Your task to perform on an android device: Open Wikipedia Image 0: 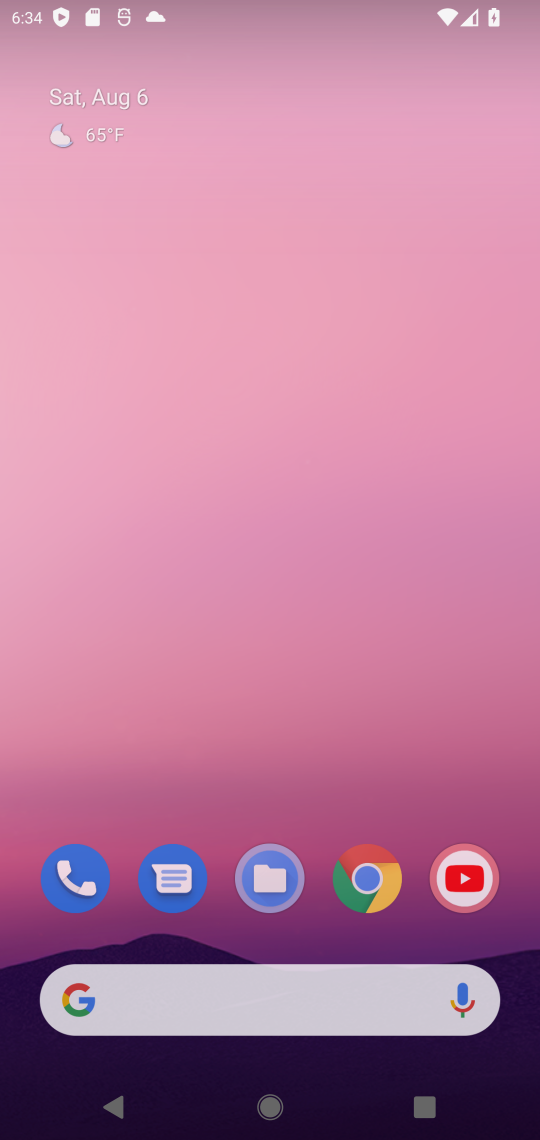
Step 0: press back button
Your task to perform on an android device: Open Wikipedia Image 1: 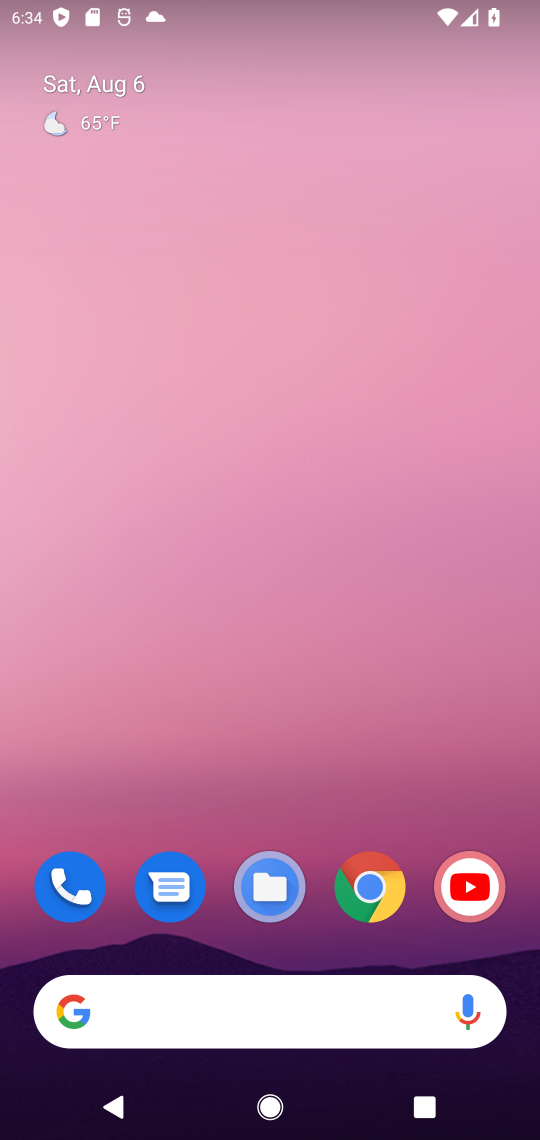
Step 1: drag from (344, 823) to (90, 162)
Your task to perform on an android device: Open Wikipedia Image 2: 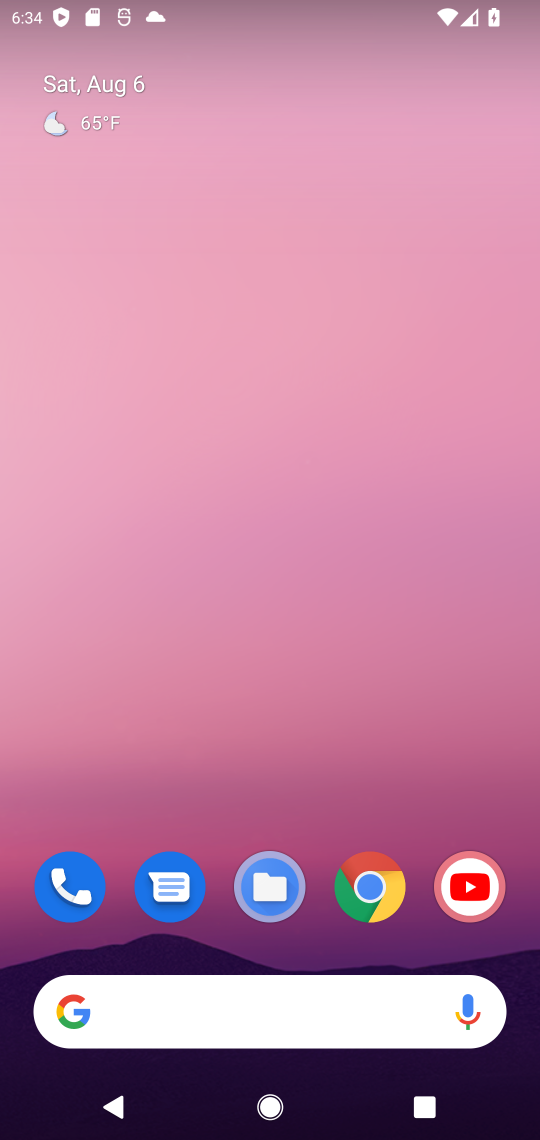
Step 2: click (150, 197)
Your task to perform on an android device: Open Wikipedia Image 3: 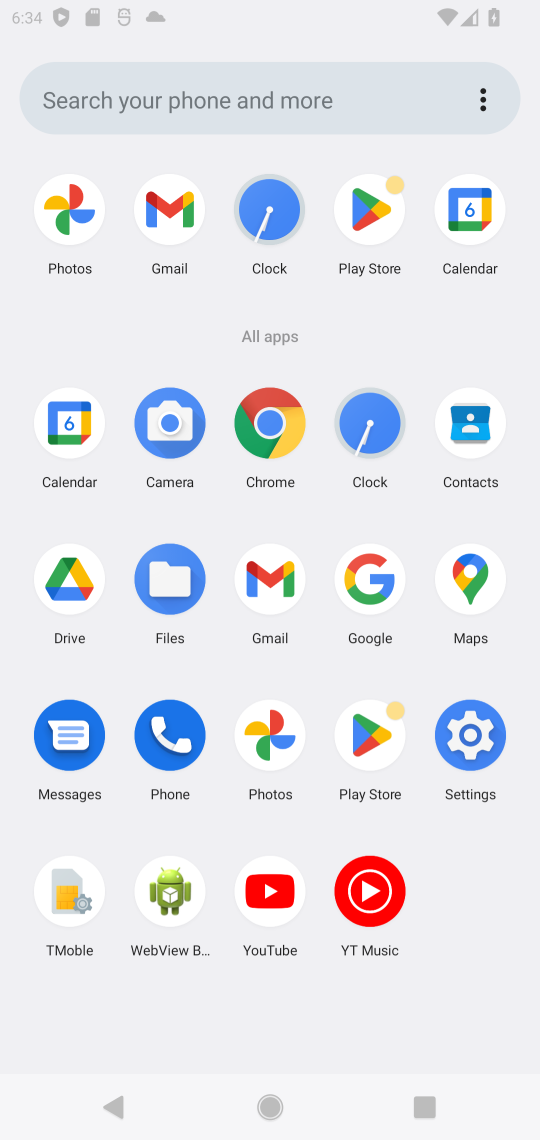
Step 3: drag from (293, 901) to (231, 266)
Your task to perform on an android device: Open Wikipedia Image 4: 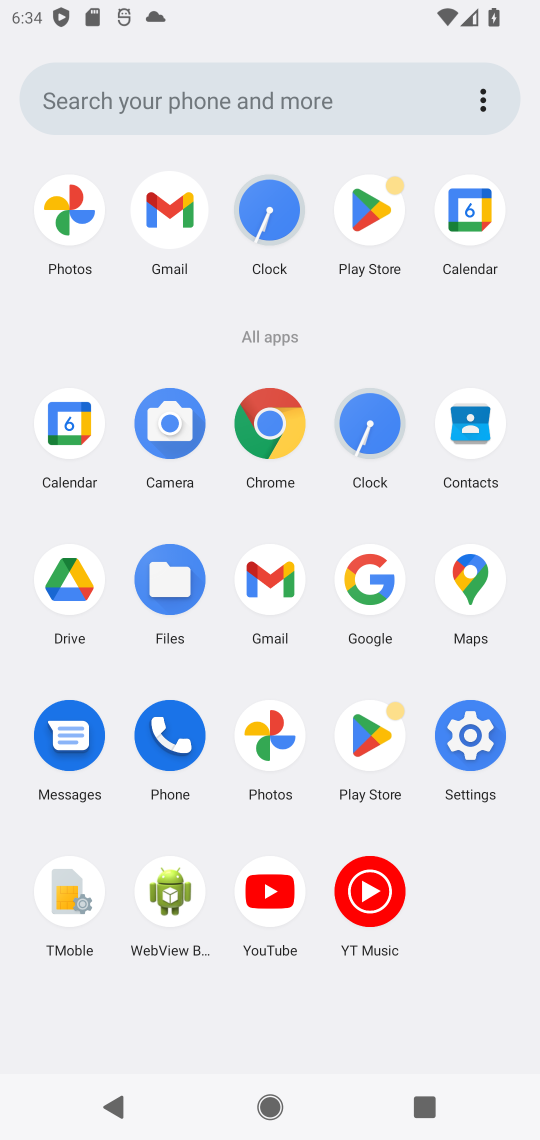
Step 4: drag from (399, 874) to (311, 281)
Your task to perform on an android device: Open Wikipedia Image 5: 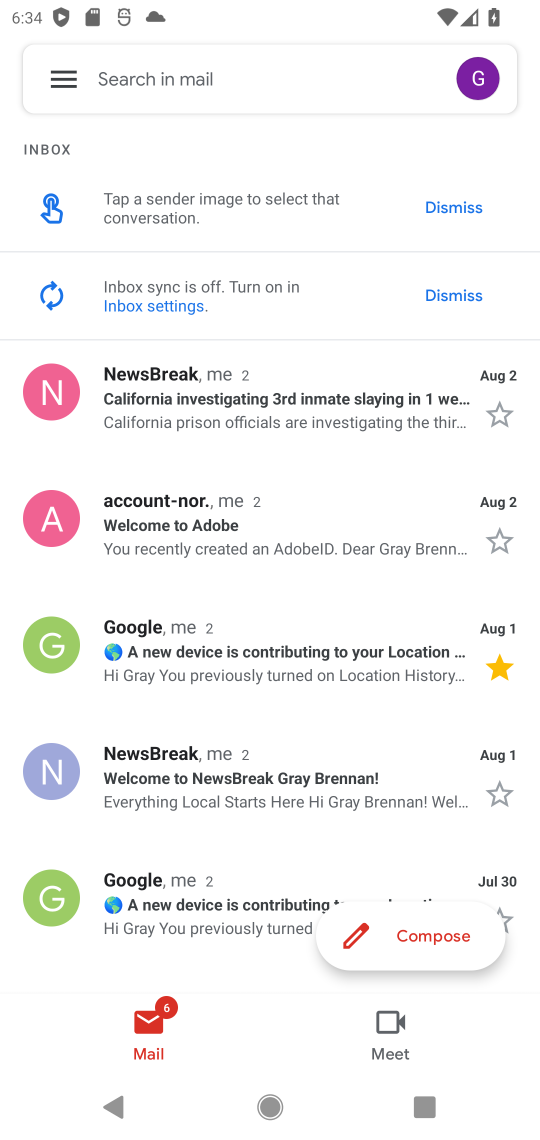
Step 5: press back button
Your task to perform on an android device: Open Wikipedia Image 6: 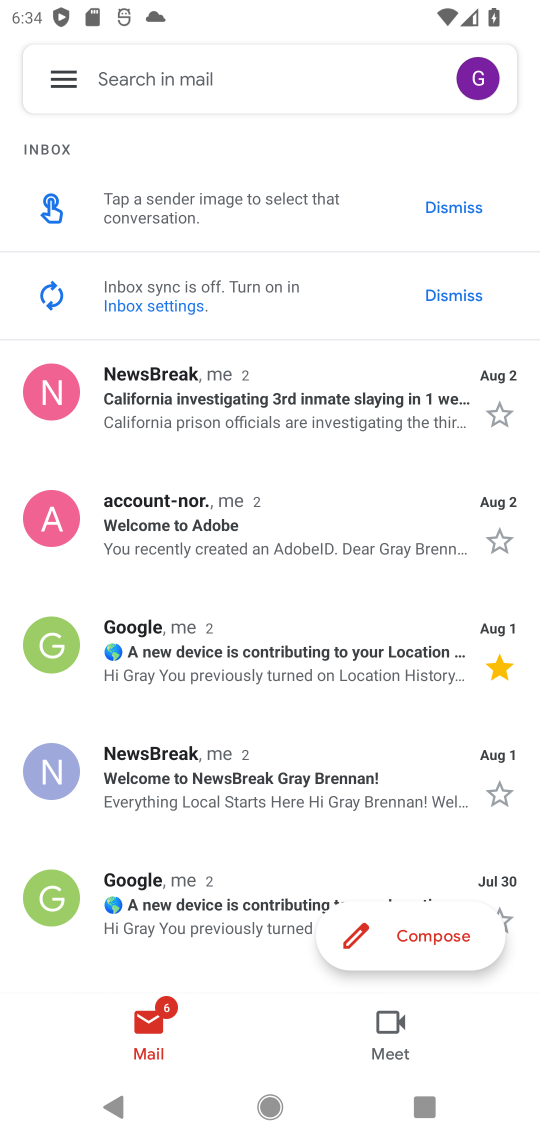
Step 6: press back button
Your task to perform on an android device: Open Wikipedia Image 7: 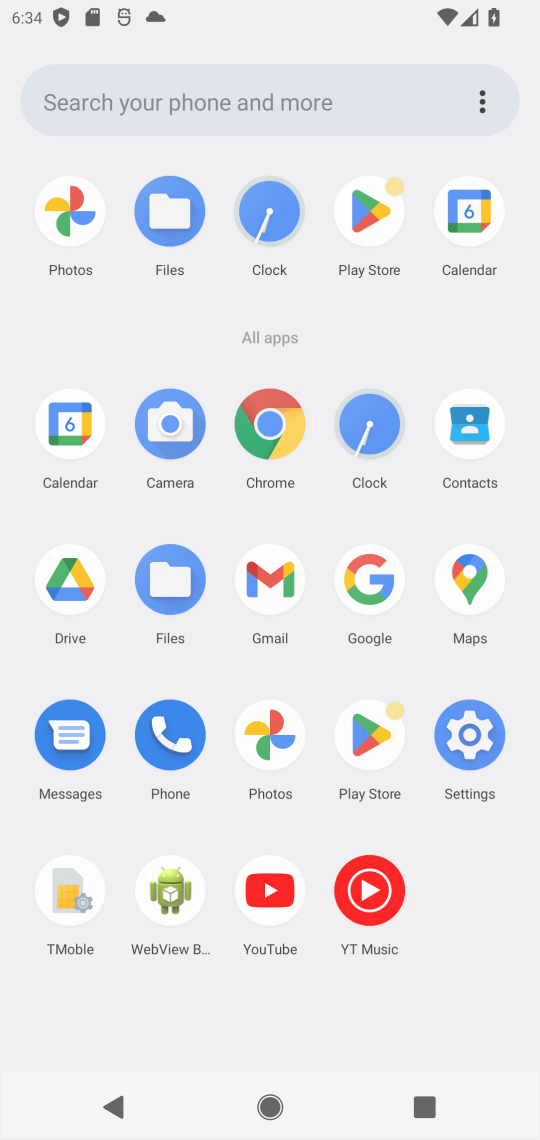
Step 7: press back button
Your task to perform on an android device: Open Wikipedia Image 8: 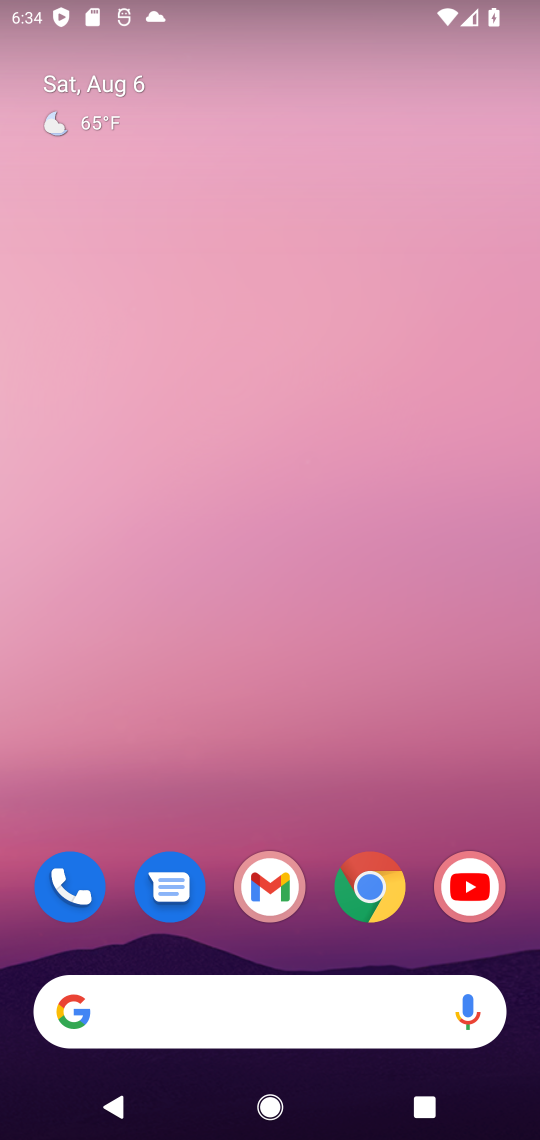
Step 8: drag from (301, 924) to (163, 167)
Your task to perform on an android device: Open Wikipedia Image 9: 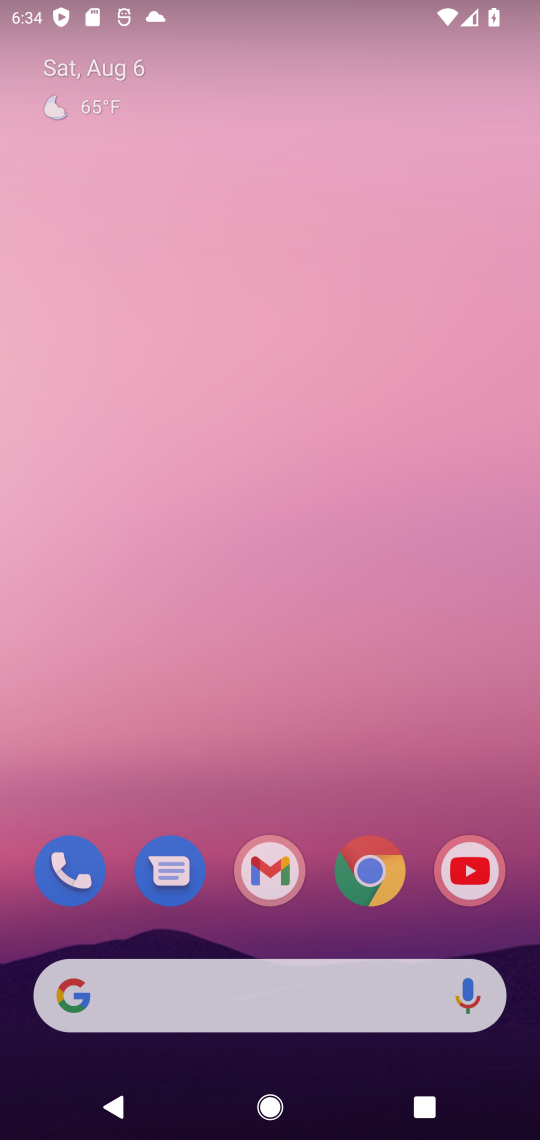
Step 9: drag from (156, 306) to (141, 224)
Your task to perform on an android device: Open Wikipedia Image 10: 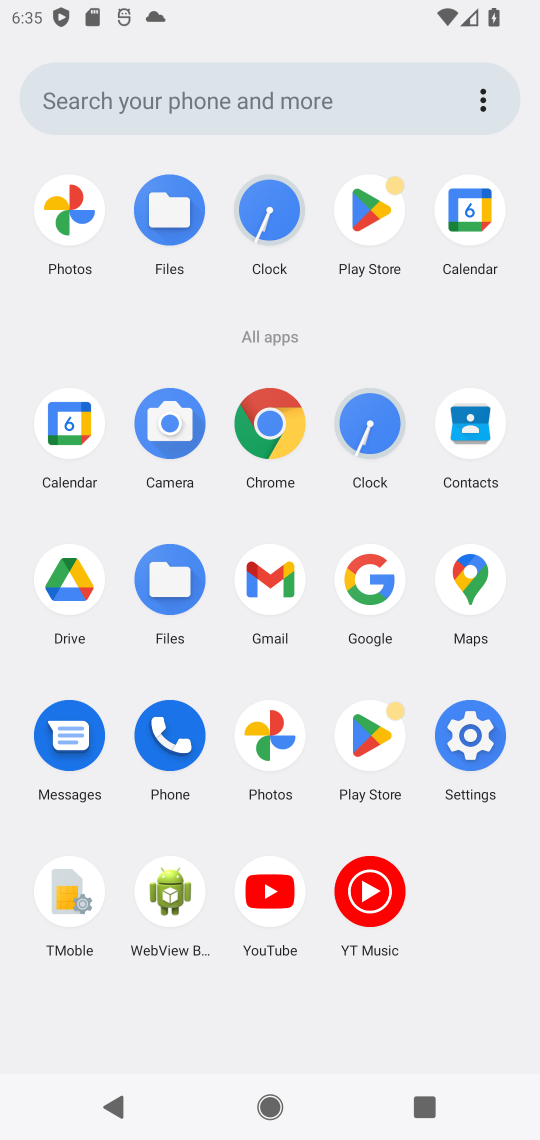
Step 10: click (254, 437)
Your task to perform on an android device: Open Wikipedia Image 11: 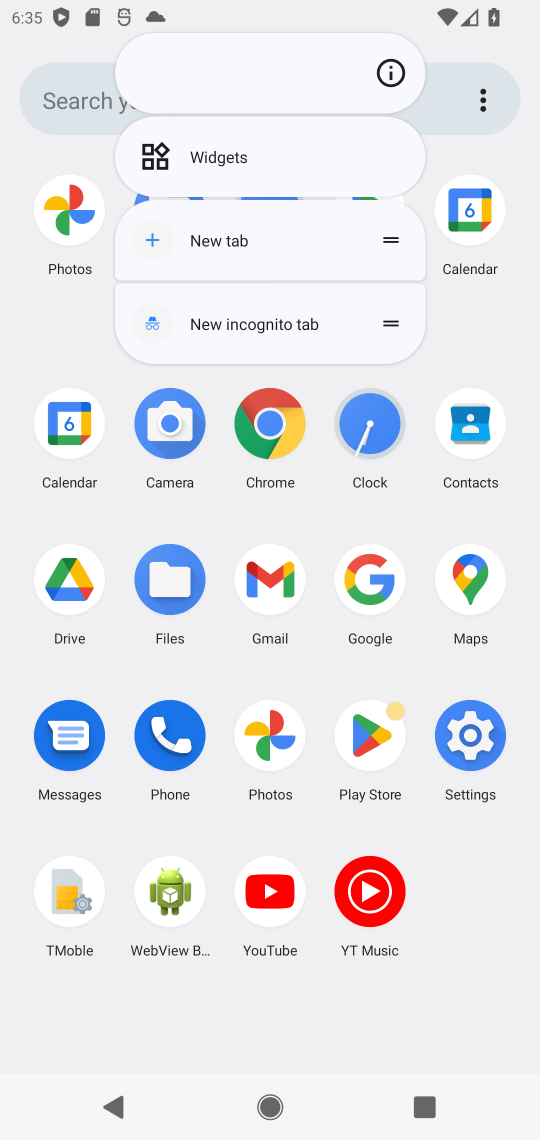
Step 11: click (271, 413)
Your task to perform on an android device: Open Wikipedia Image 12: 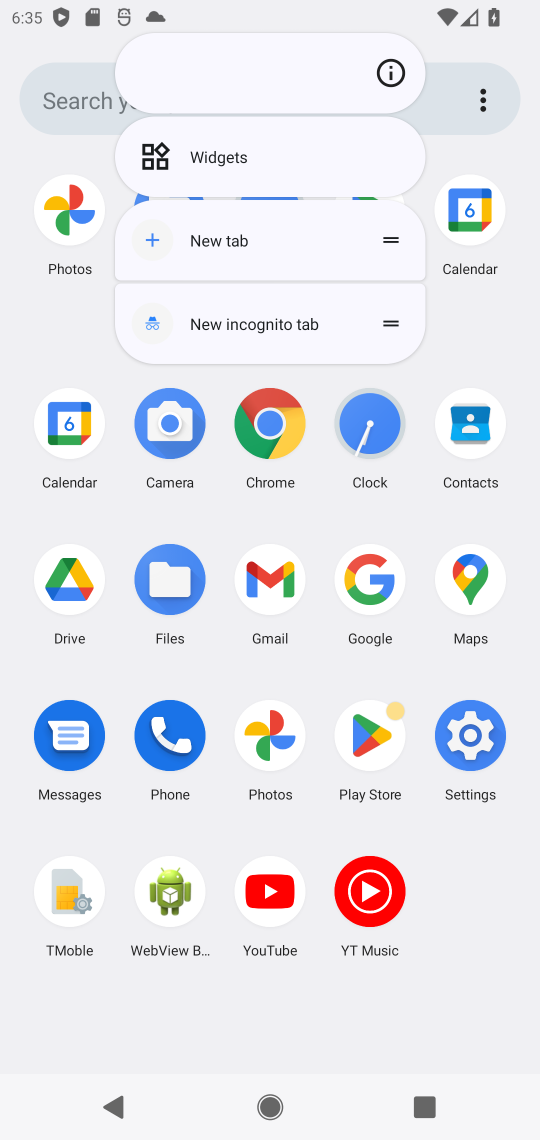
Step 12: click (265, 454)
Your task to perform on an android device: Open Wikipedia Image 13: 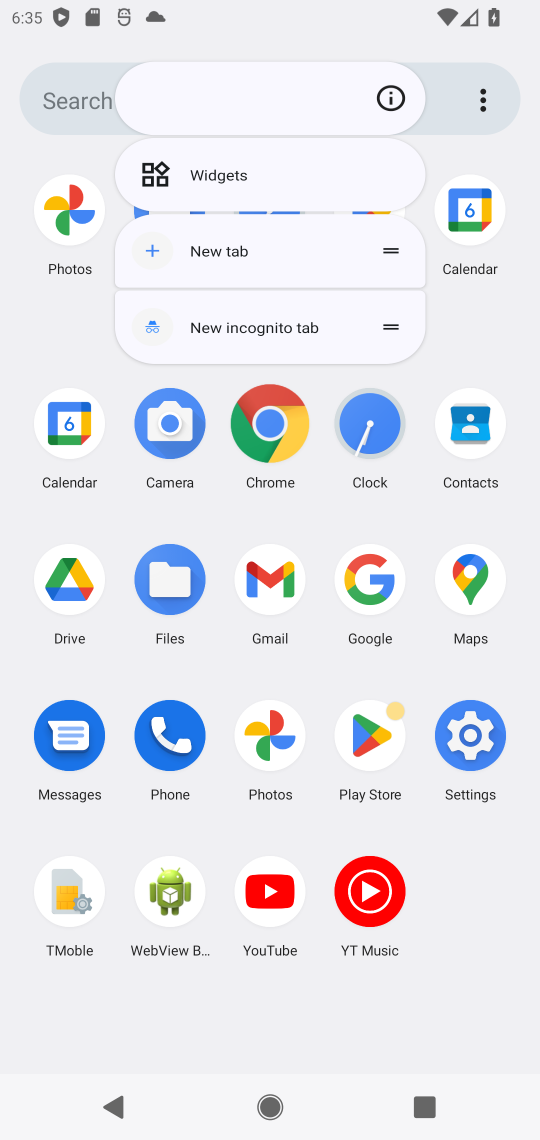
Step 13: click (265, 433)
Your task to perform on an android device: Open Wikipedia Image 14: 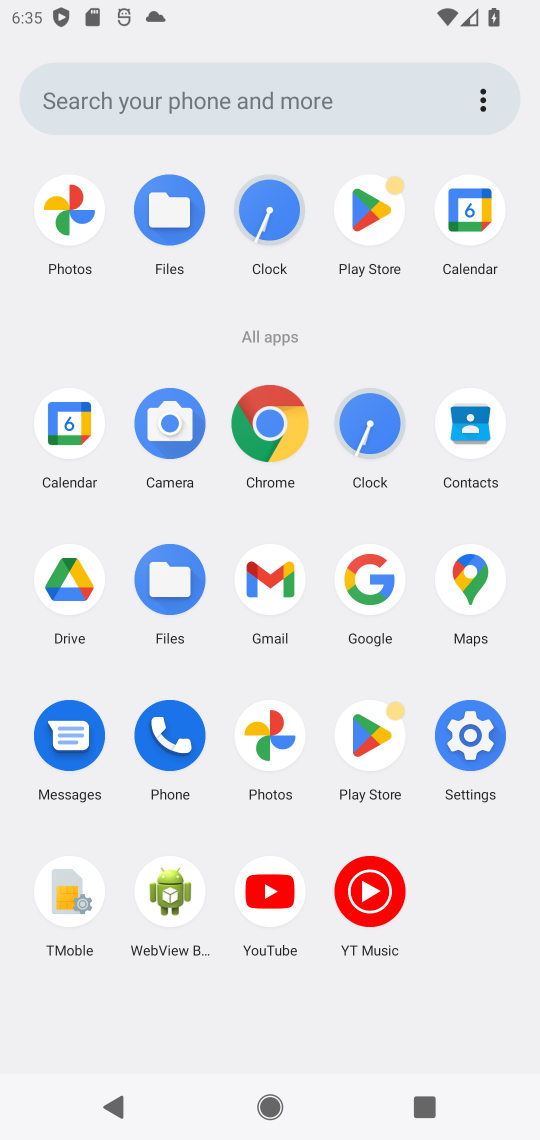
Step 14: click (265, 430)
Your task to perform on an android device: Open Wikipedia Image 15: 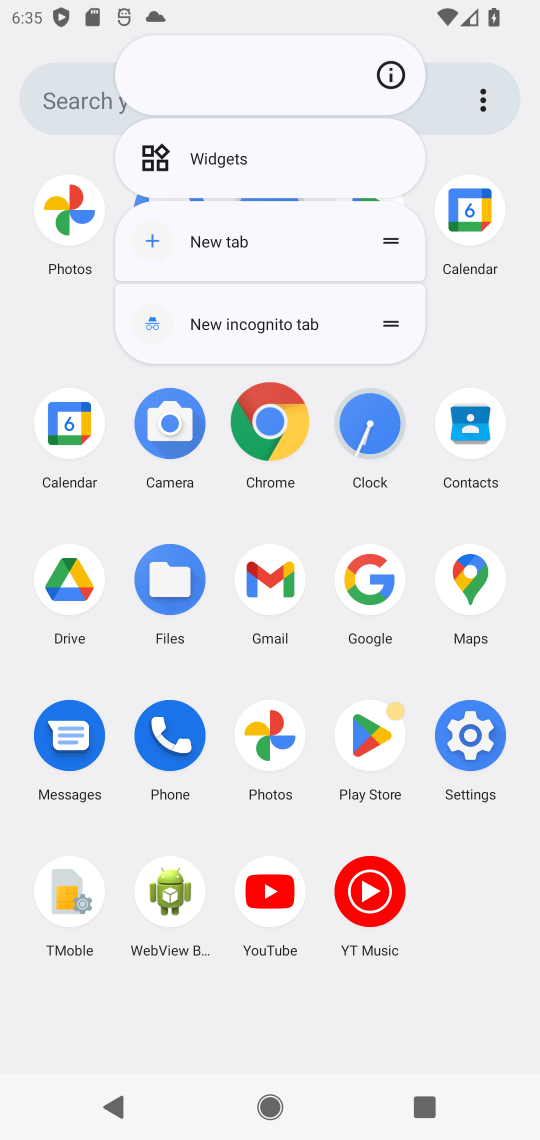
Step 15: click (265, 428)
Your task to perform on an android device: Open Wikipedia Image 16: 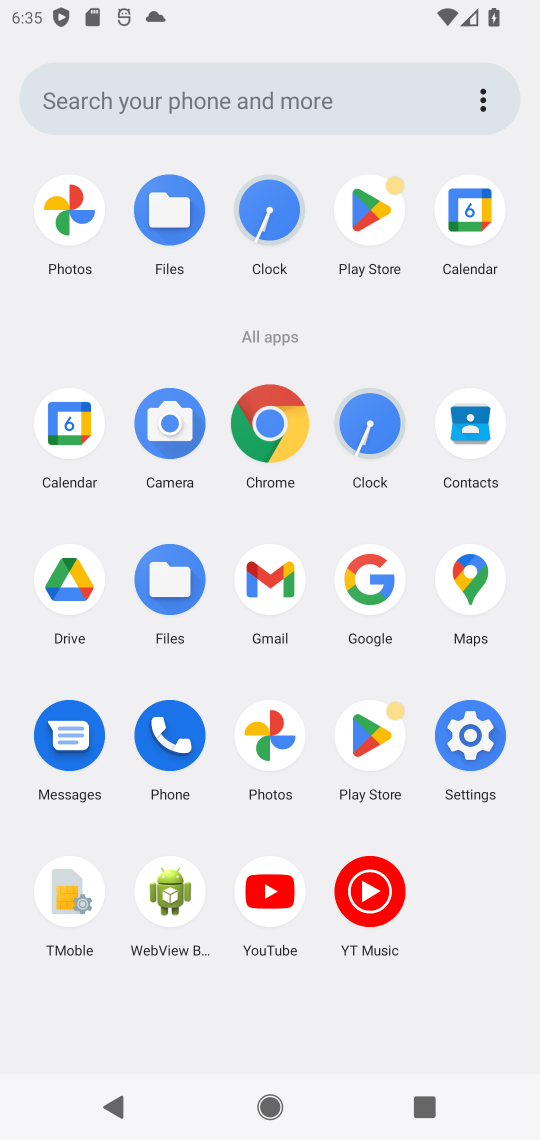
Step 16: click (265, 433)
Your task to perform on an android device: Open Wikipedia Image 17: 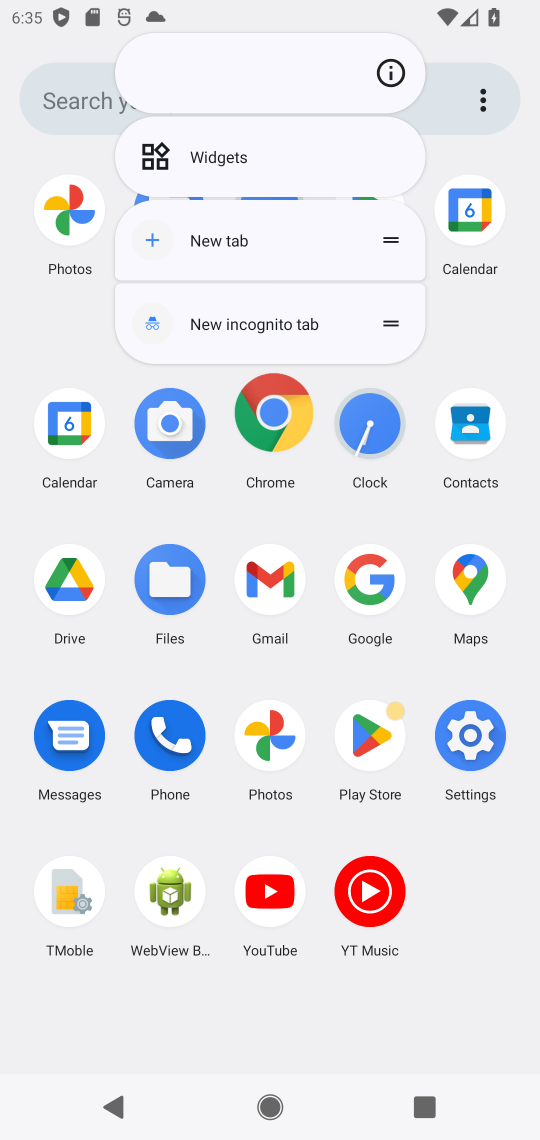
Step 17: click (275, 421)
Your task to perform on an android device: Open Wikipedia Image 18: 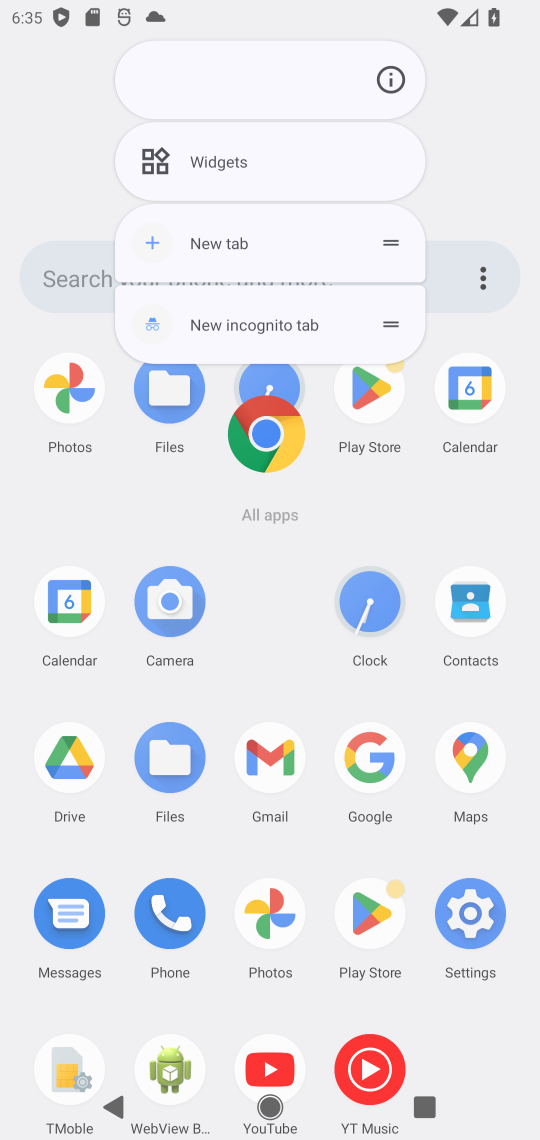
Step 18: click (264, 442)
Your task to perform on an android device: Open Wikipedia Image 19: 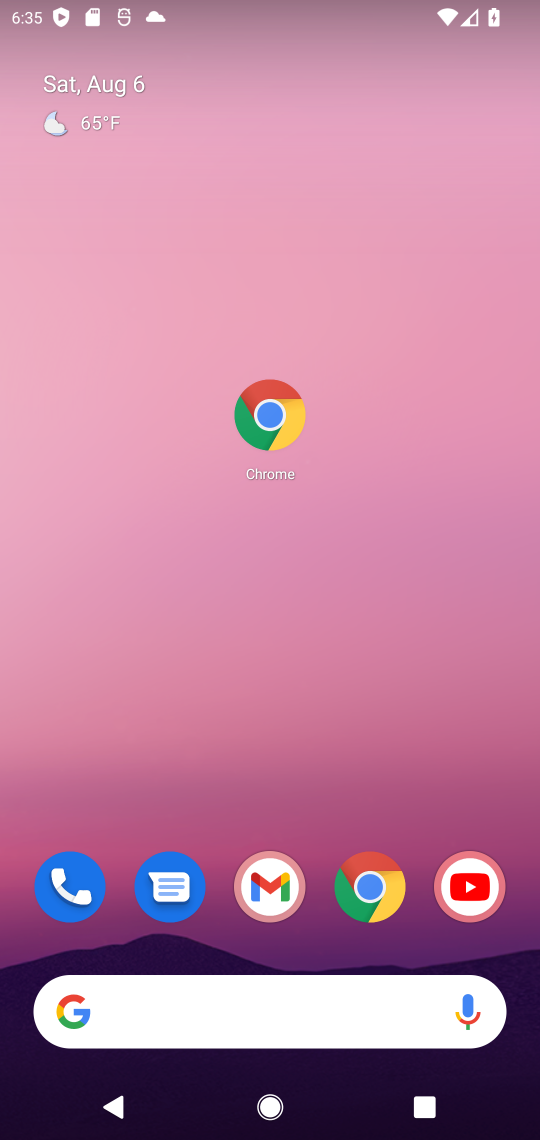
Step 19: drag from (330, 642) to (262, 120)
Your task to perform on an android device: Open Wikipedia Image 20: 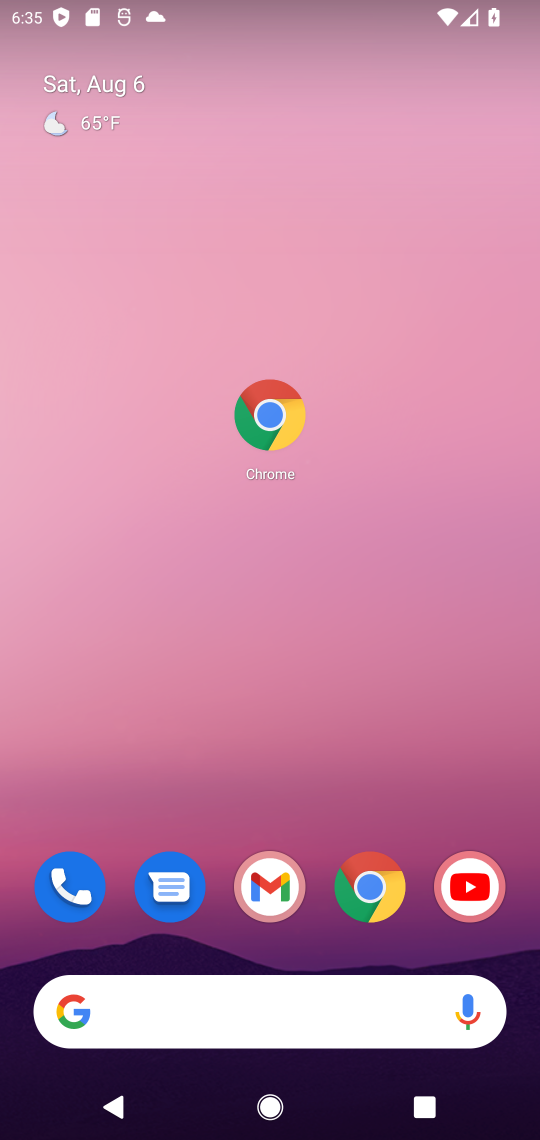
Step 20: click (211, 199)
Your task to perform on an android device: Open Wikipedia Image 21: 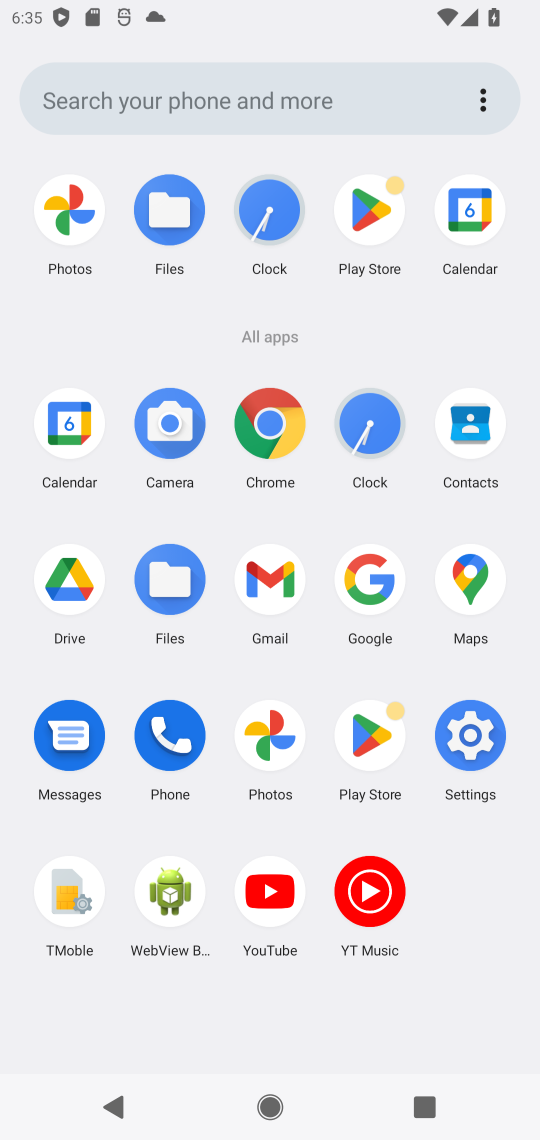
Step 21: click (230, 233)
Your task to perform on an android device: Open Wikipedia Image 22: 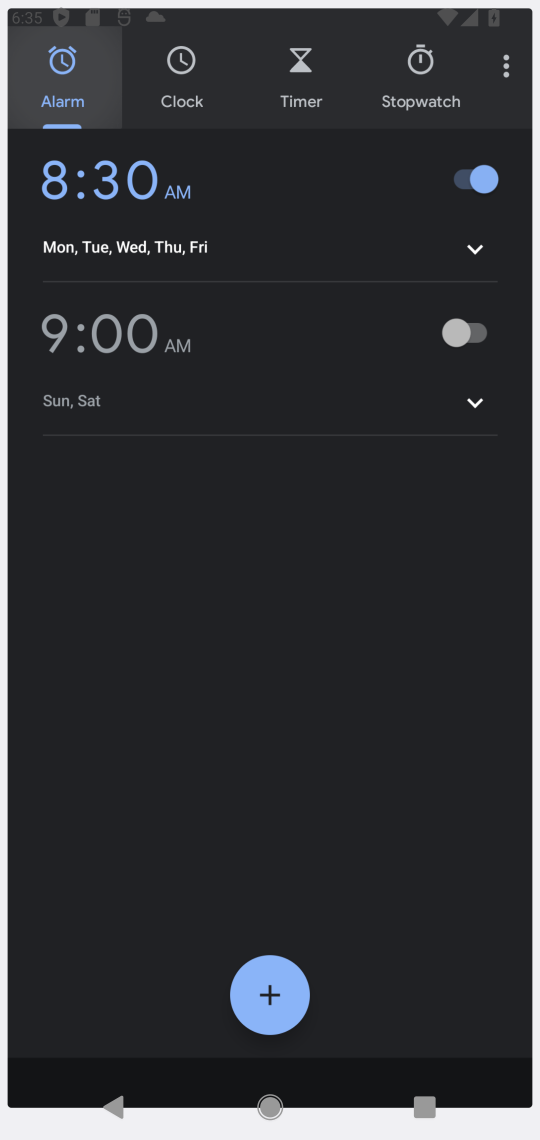
Step 22: click (276, 432)
Your task to perform on an android device: Open Wikipedia Image 23: 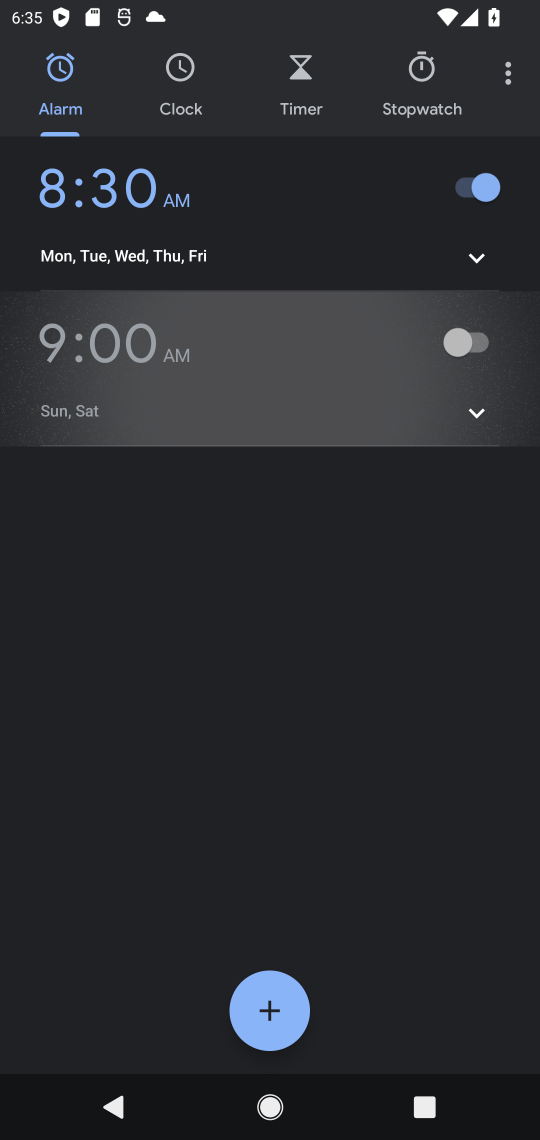
Step 23: click (276, 433)
Your task to perform on an android device: Open Wikipedia Image 24: 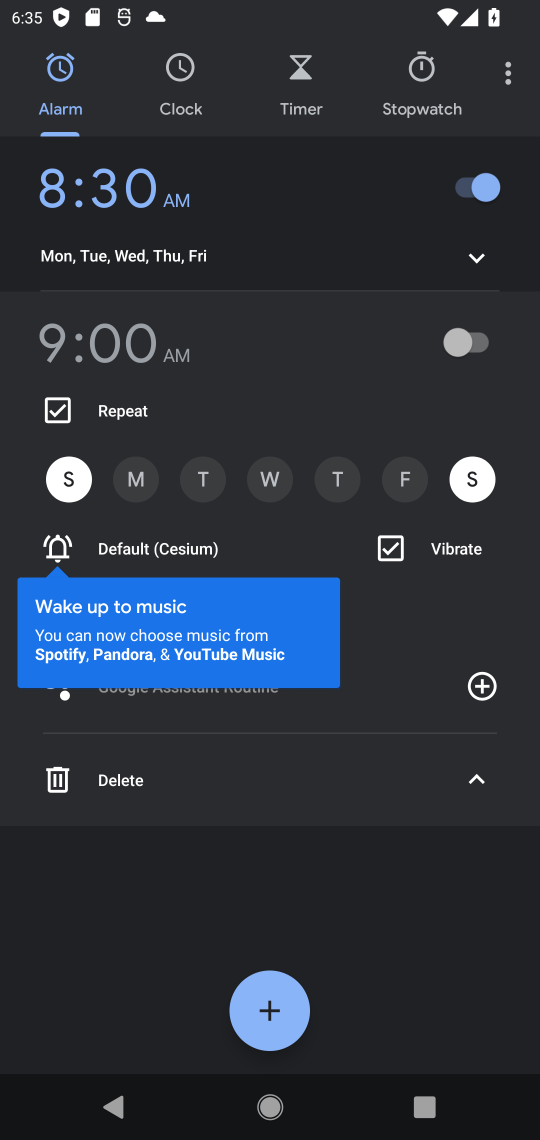
Step 24: press back button
Your task to perform on an android device: Open Wikipedia Image 25: 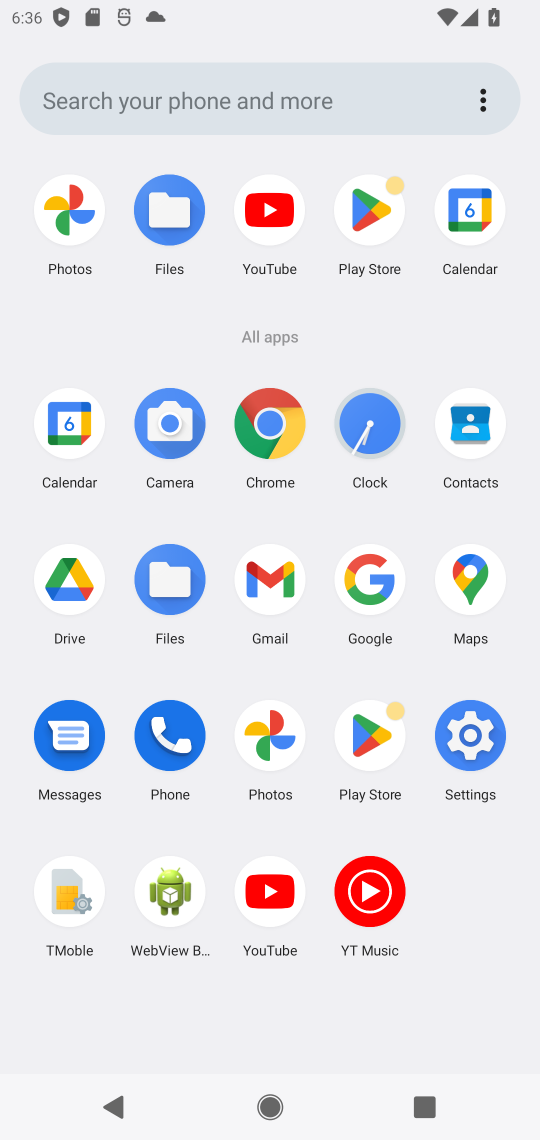
Step 25: click (305, 435)
Your task to perform on an android device: Open Wikipedia Image 26: 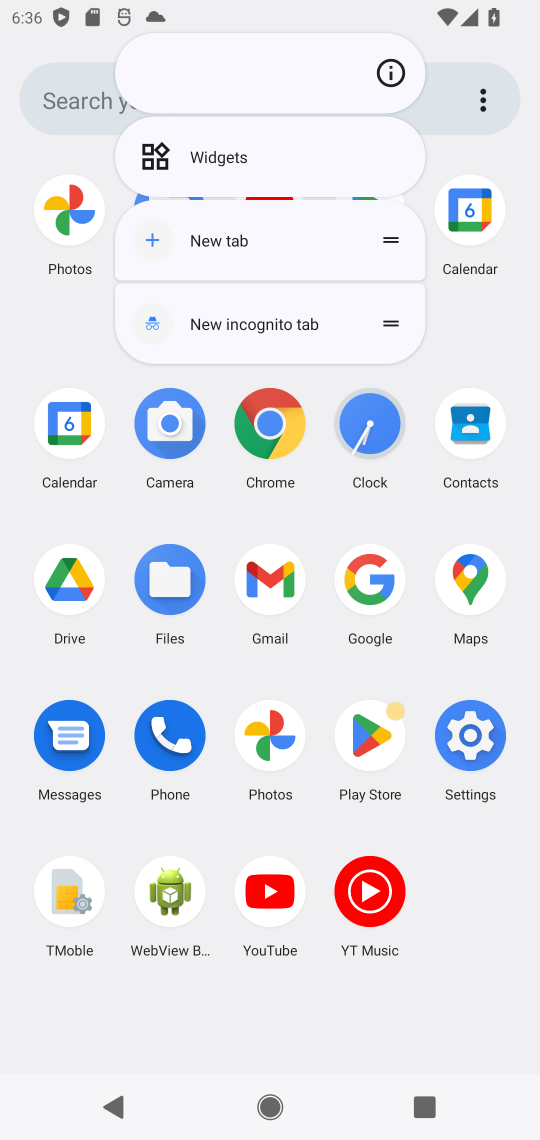
Step 26: click (253, 450)
Your task to perform on an android device: Open Wikipedia Image 27: 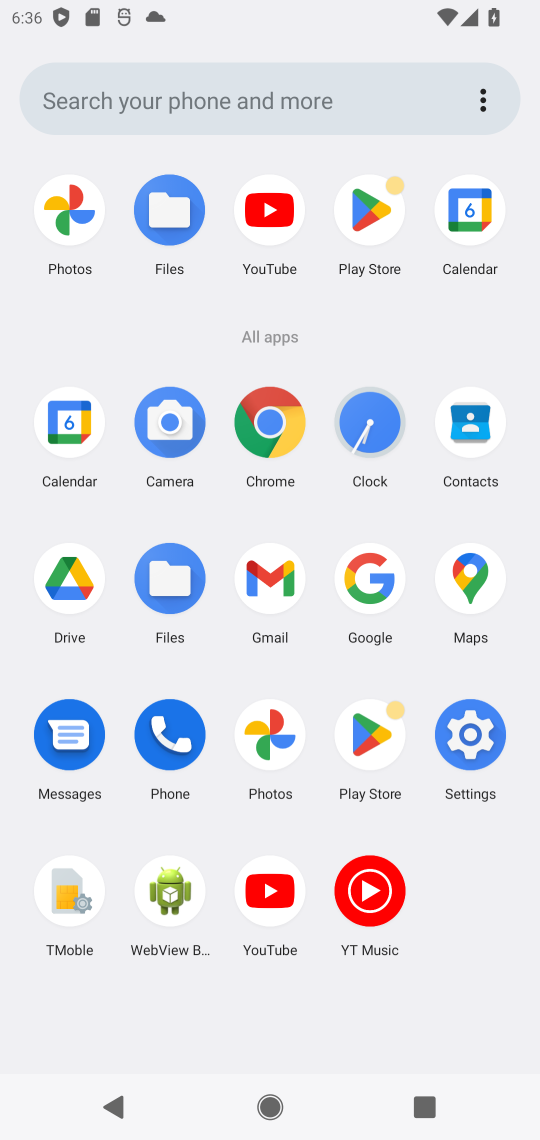
Step 27: click (279, 425)
Your task to perform on an android device: Open Wikipedia Image 28: 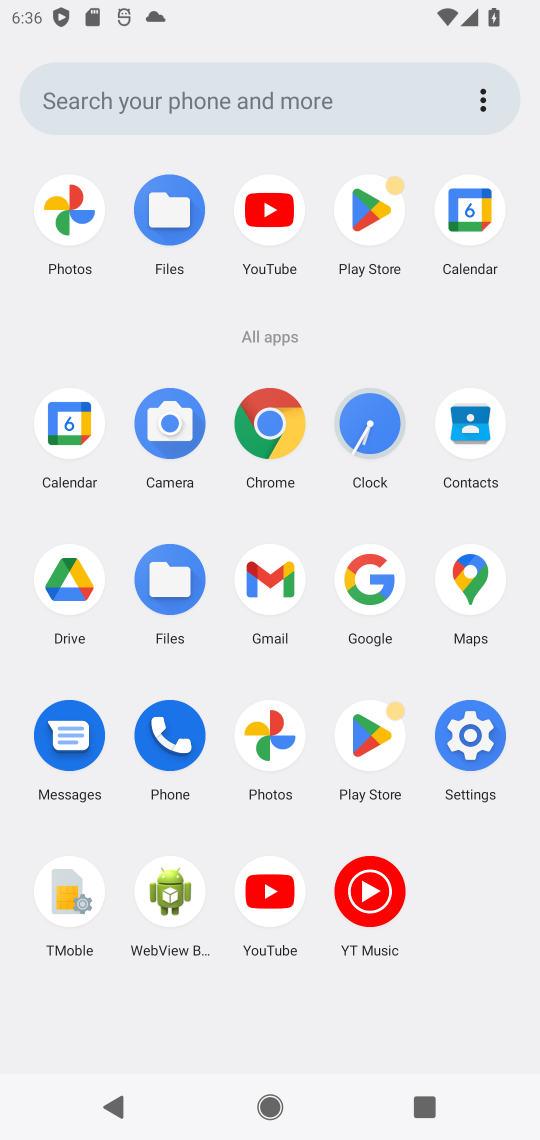
Step 28: click (276, 407)
Your task to perform on an android device: Open Wikipedia Image 29: 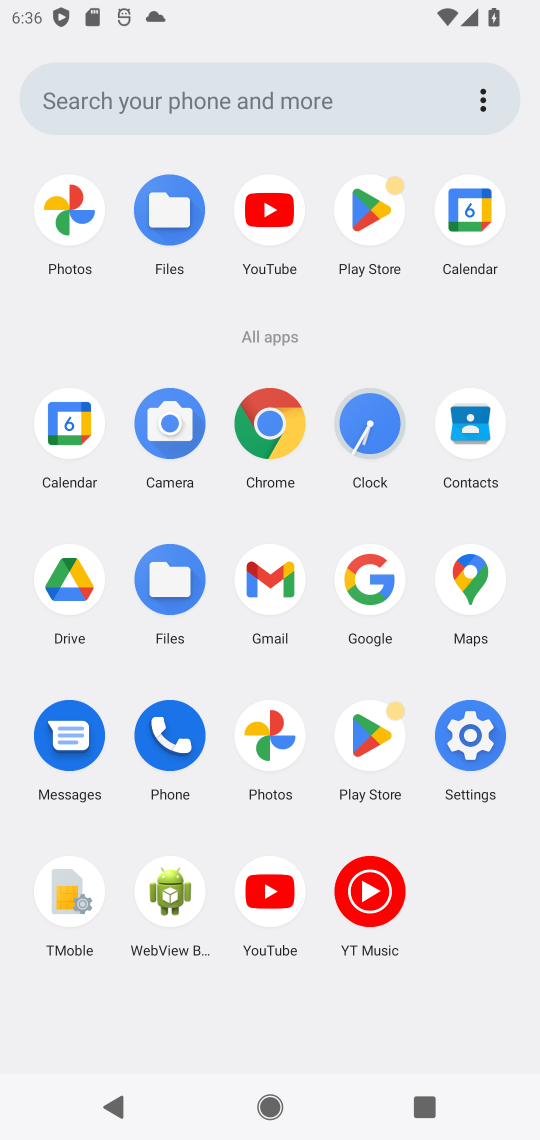
Step 29: click (276, 415)
Your task to perform on an android device: Open Wikipedia Image 30: 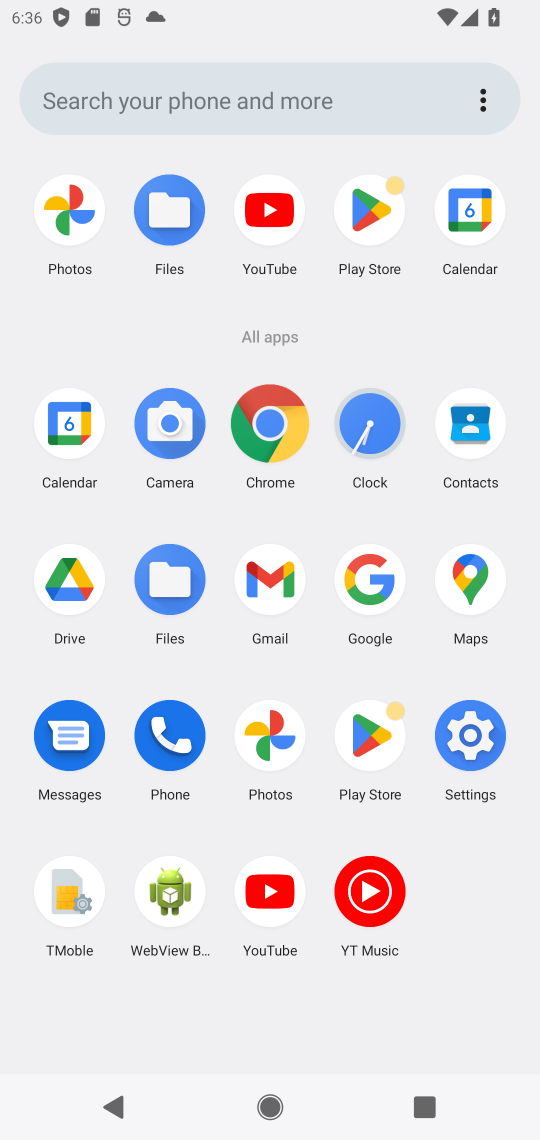
Step 30: click (276, 415)
Your task to perform on an android device: Open Wikipedia Image 31: 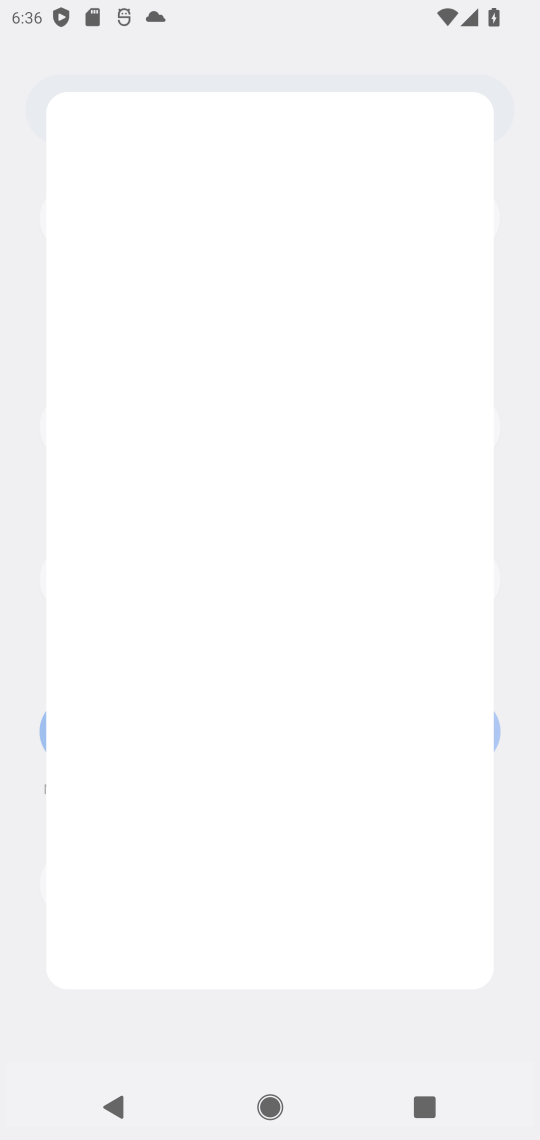
Step 31: click (279, 418)
Your task to perform on an android device: Open Wikipedia Image 32: 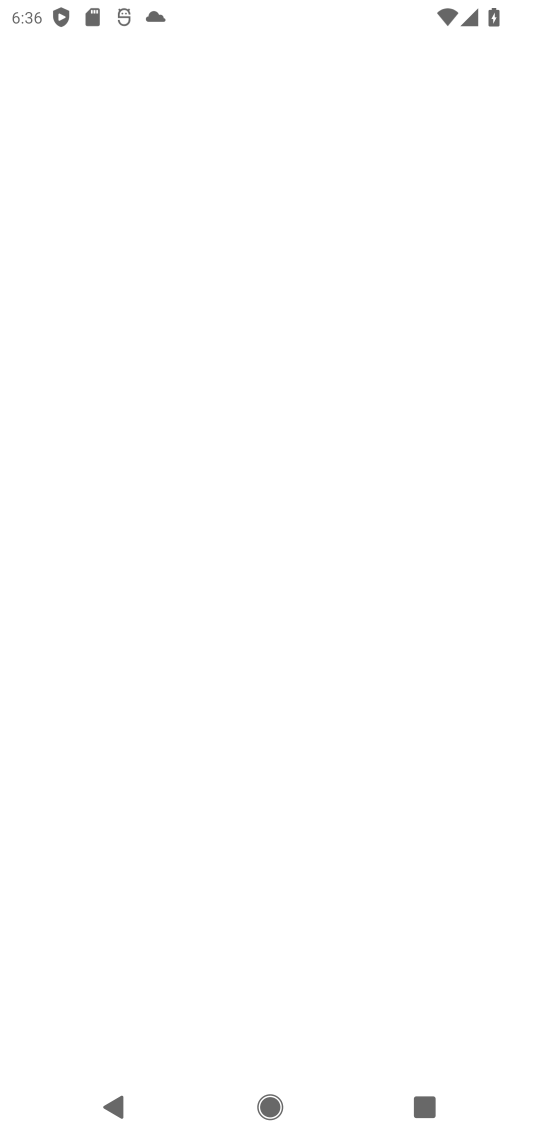
Step 32: click (280, 436)
Your task to perform on an android device: Open Wikipedia Image 33: 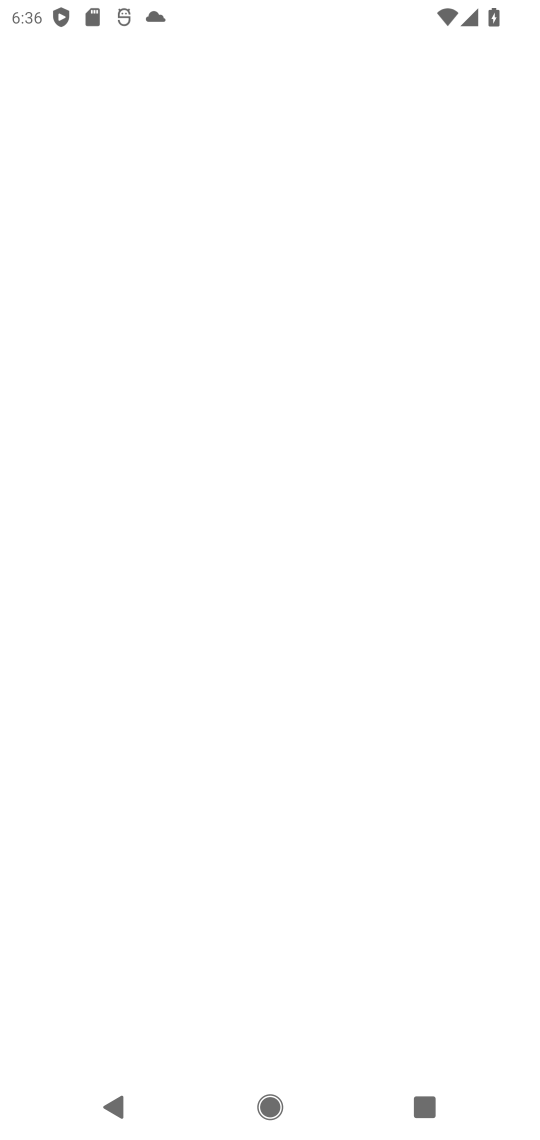
Step 33: click (282, 437)
Your task to perform on an android device: Open Wikipedia Image 34: 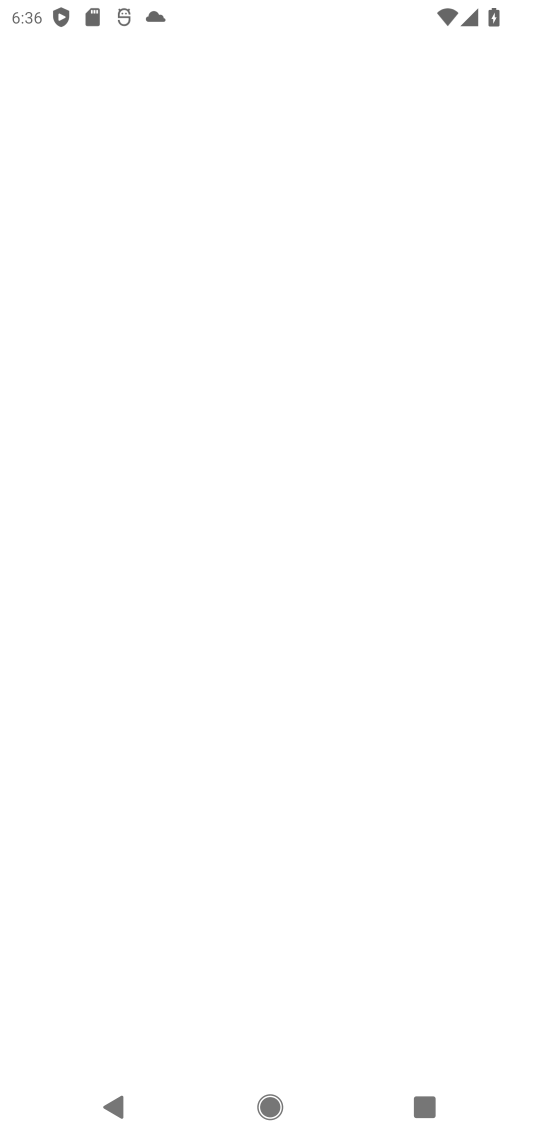
Step 34: click (282, 437)
Your task to perform on an android device: Open Wikipedia Image 35: 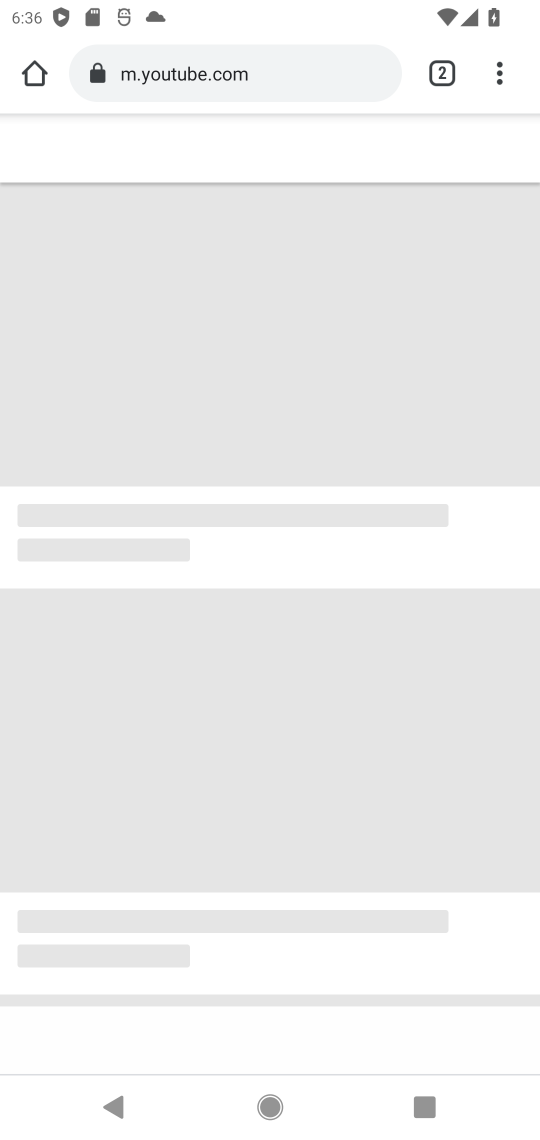
Step 35: click (496, 63)
Your task to perform on an android device: Open Wikipedia Image 36: 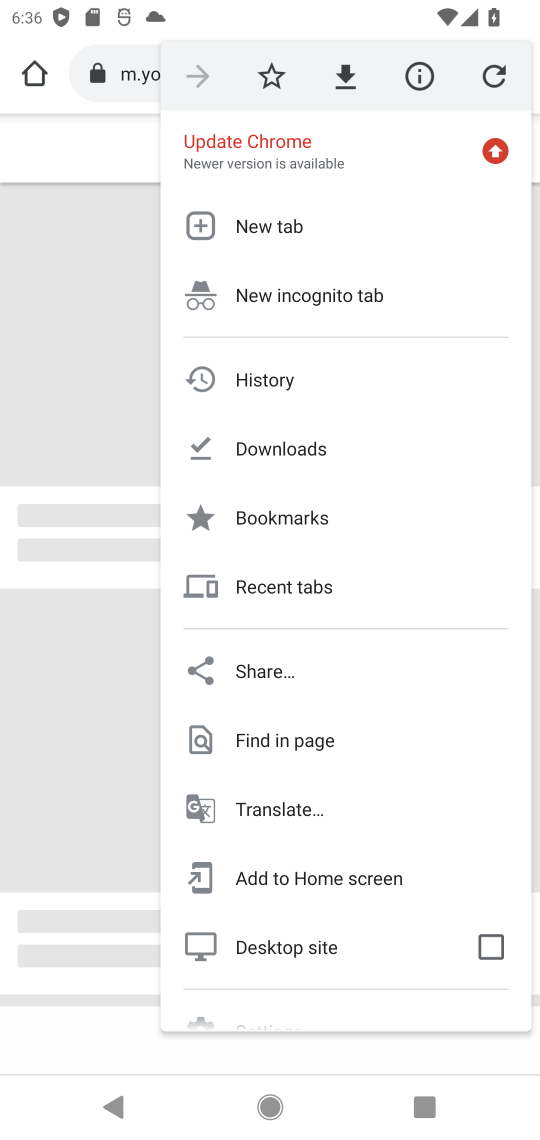
Step 36: click (262, 222)
Your task to perform on an android device: Open Wikipedia Image 37: 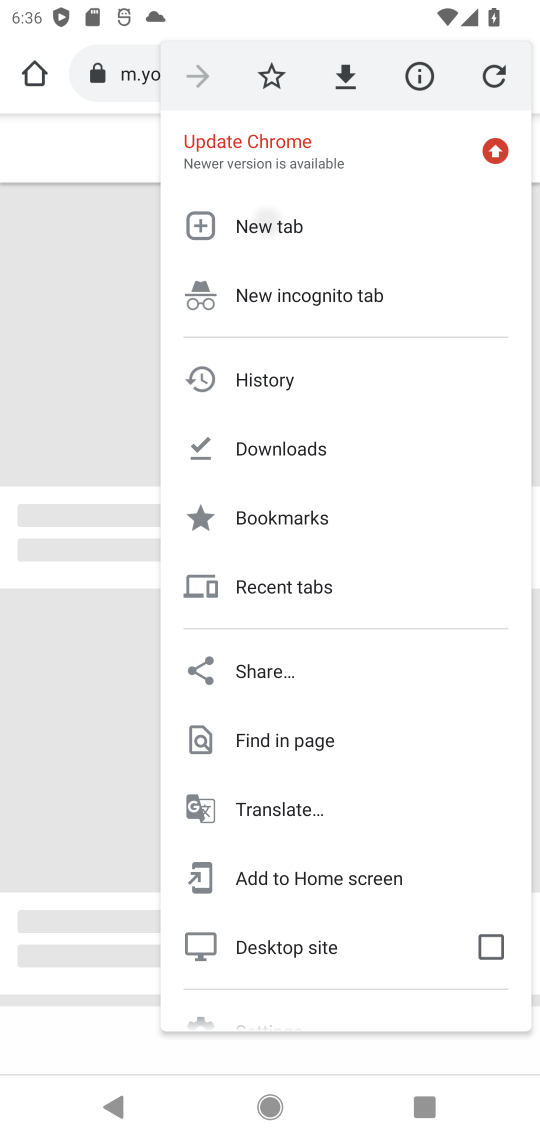
Step 37: click (262, 222)
Your task to perform on an android device: Open Wikipedia Image 38: 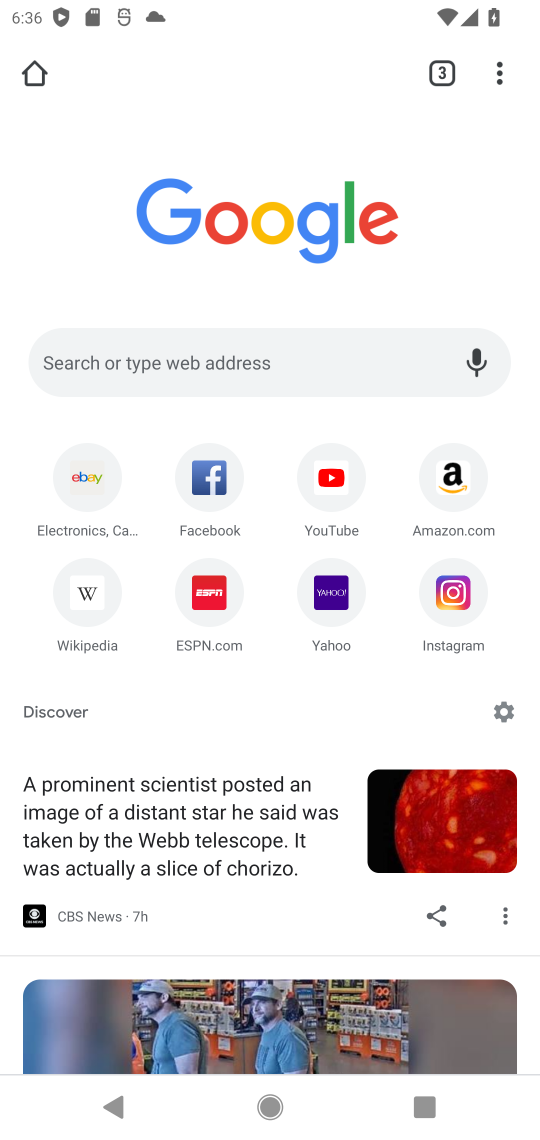
Step 38: click (83, 613)
Your task to perform on an android device: Open Wikipedia Image 39: 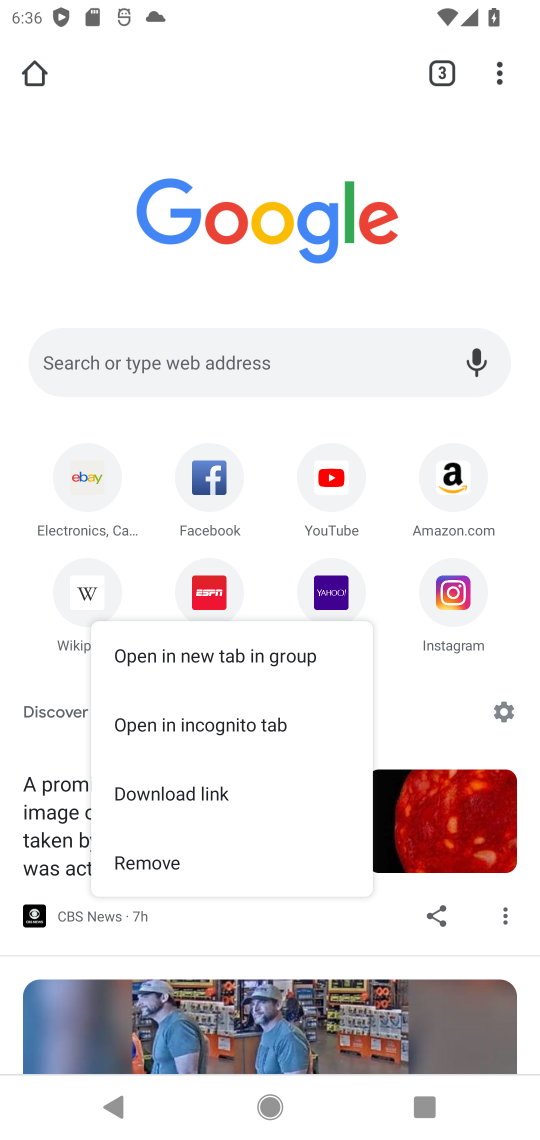
Step 39: click (84, 613)
Your task to perform on an android device: Open Wikipedia Image 40: 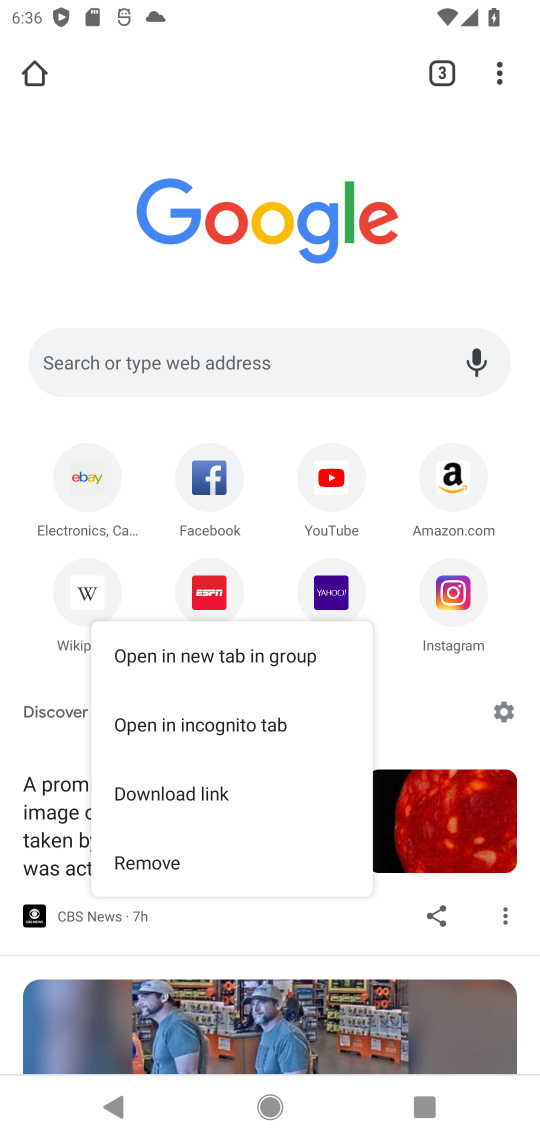
Step 40: click (85, 579)
Your task to perform on an android device: Open Wikipedia Image 41: 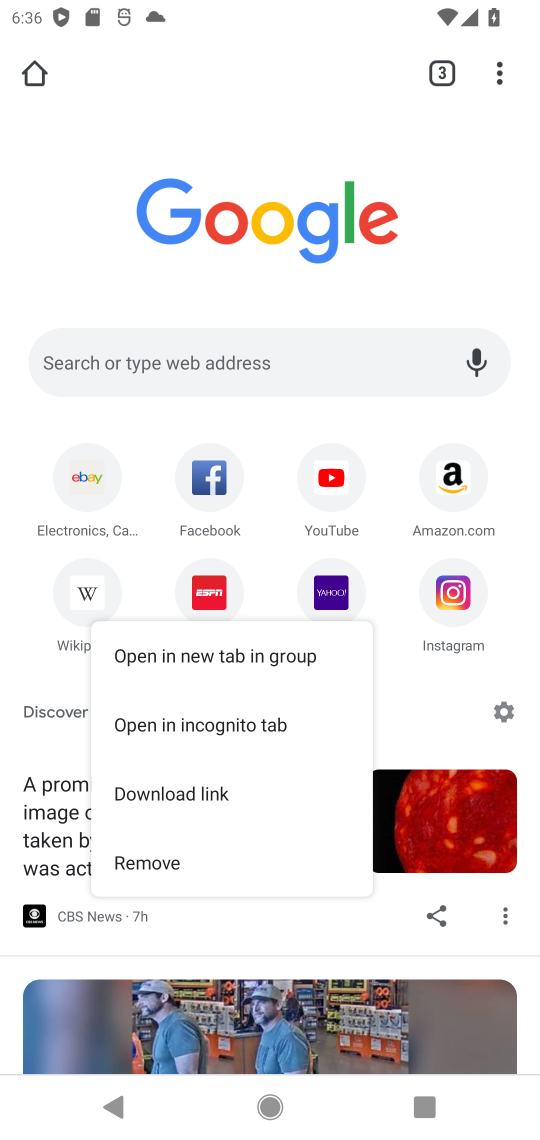
Step 41: click (91, 589)
Your task to perform on an android device: Open Wikipedia Image 42: 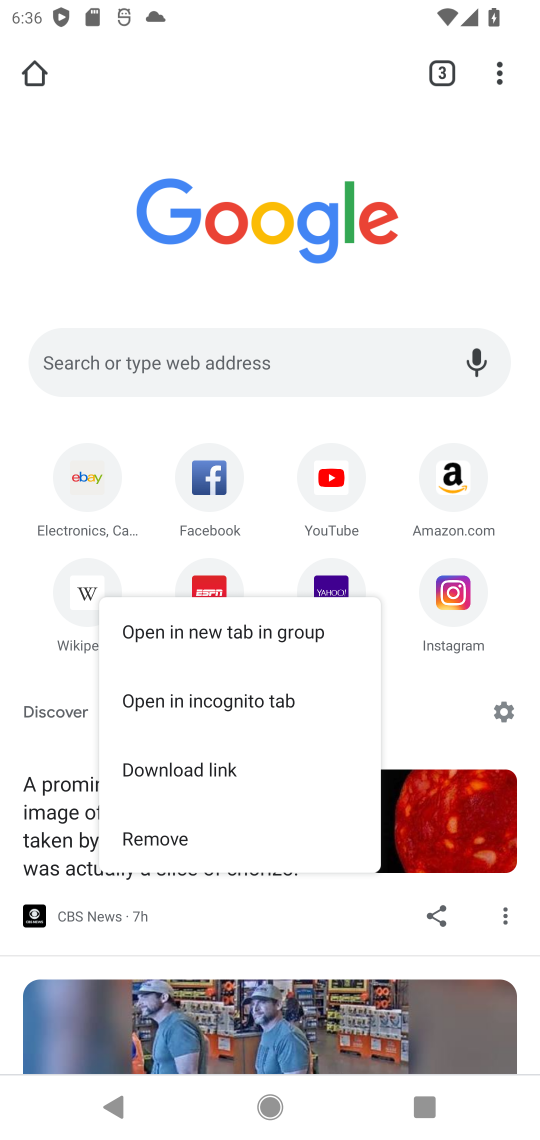
Step 42: click (89, 597)
Your task to perform on an android device: Open Wikipedia Image 43: 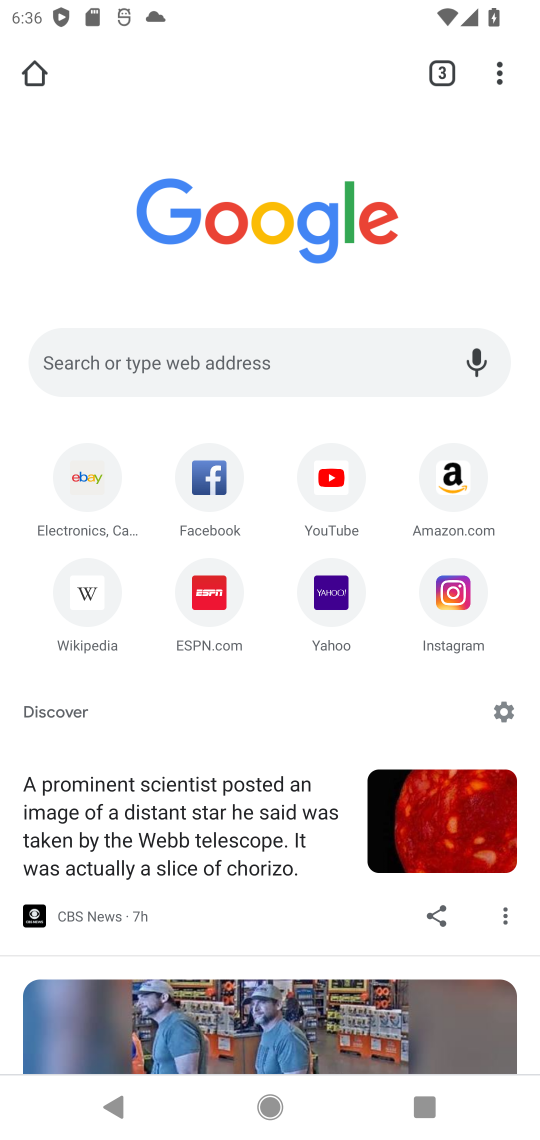
Step 43: click (97, 588)
Your task to perform on an android device: Open Wikipedia Image 44: 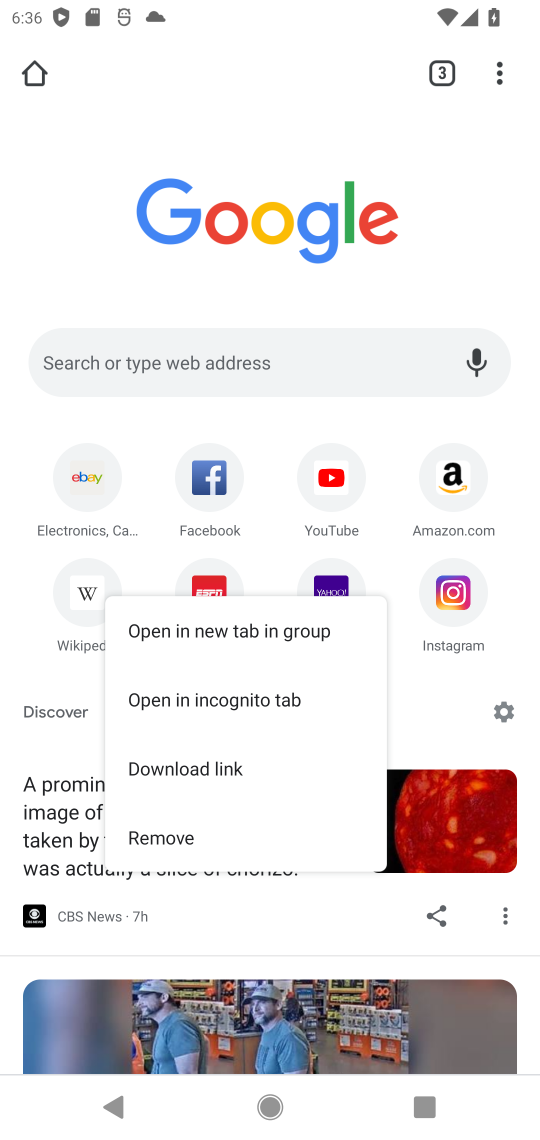
Step 44: click (84, 595)
Your task to perform on an android device: Open Wikipedia Image 45: 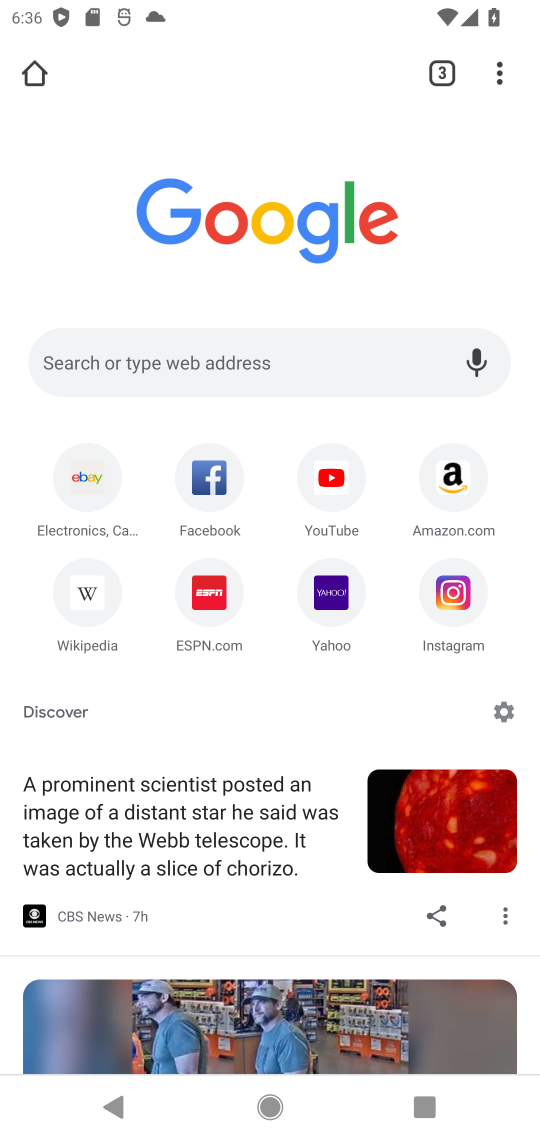
Step 45: task complete